Your task to perform on an android device: toggle notification dots Image 0: 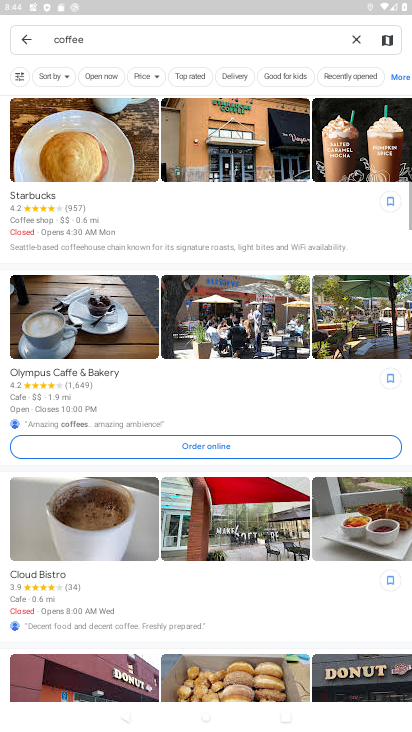
Step 0: press home button
Your task to perform on an android device: toggle notification dots Image 1: 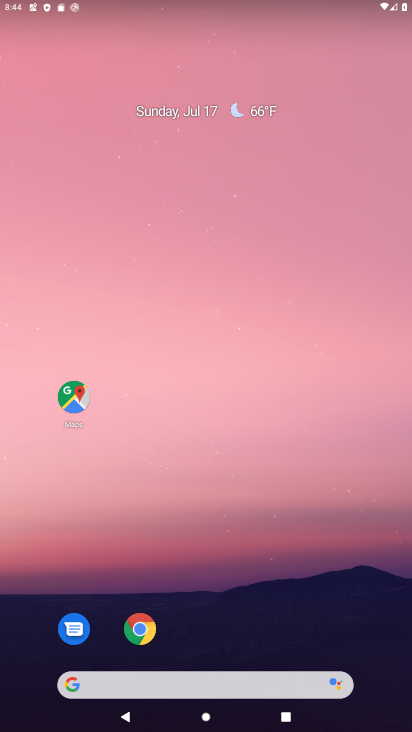
Step 1: drag from (234, 648) to (303, 11)
Your task to perform on an android device: toggle notification dots Image 2: 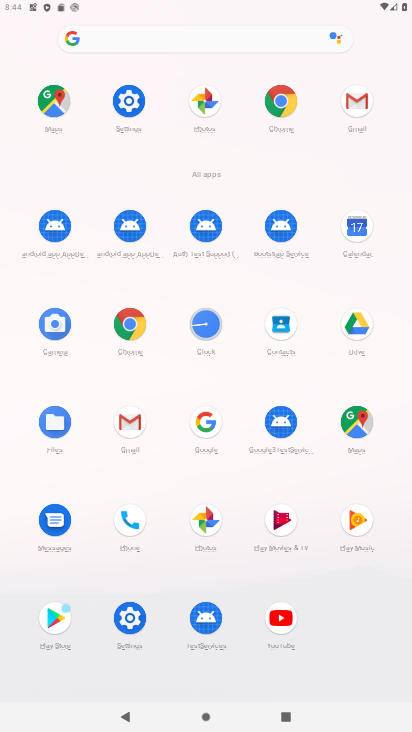
Step 2: click (123, 103)
Your task to perform on an android device: toggle notification dots Image 3: 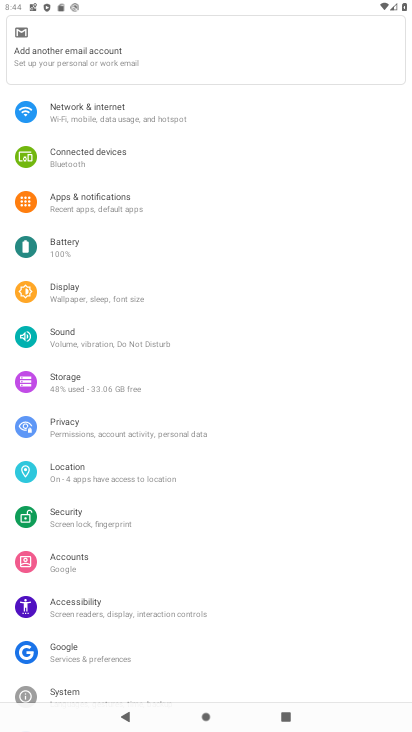
Step 3: click (88, 209)
Your task to perform on an android device: toggle notification dots Image 4: 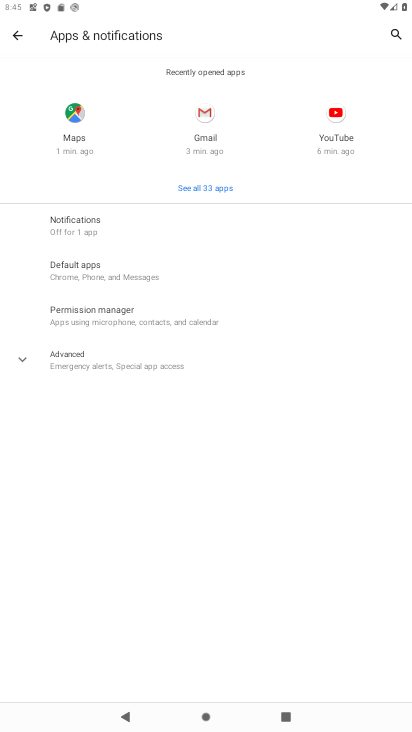
Step 4: click (96, 224)
Your task to perform on an android device: toggle notification dots Image 5: 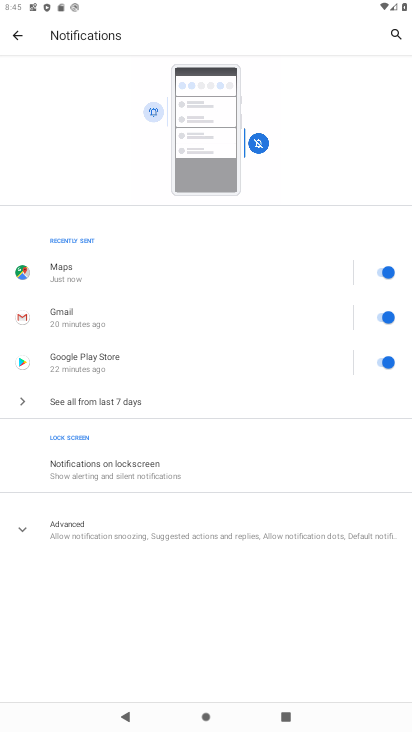
Step 5: click (53, 520)
Your task to perform on an android device: toggle notification dots Image 6: 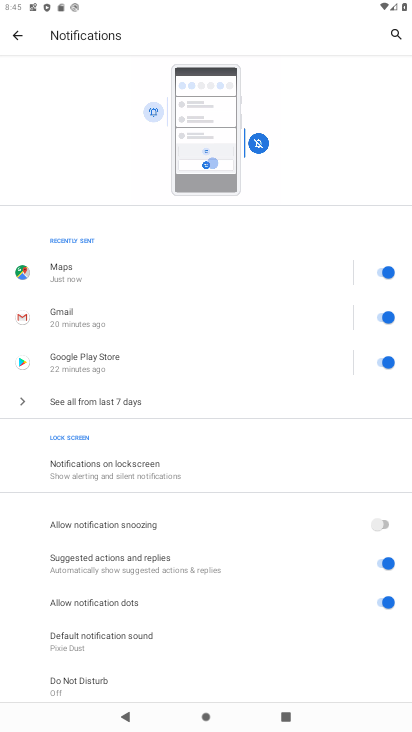
Step 6: click (377, 599)
Your task to perform on an android device: toggle notification dots Image 7: 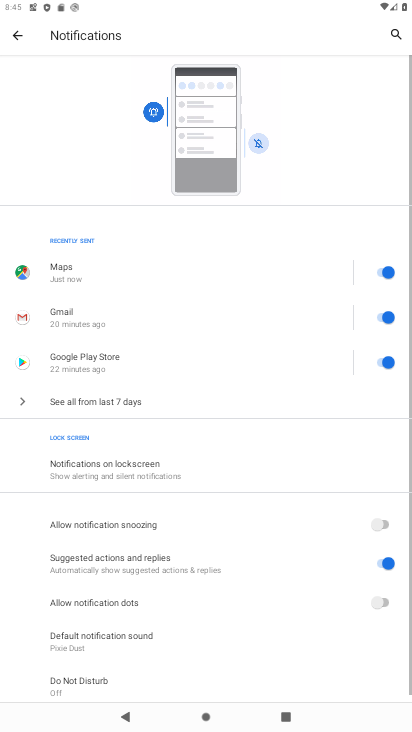
Step 7: task complete